Your task to perform on an android device: Open Maps and search for coffee Image 0: 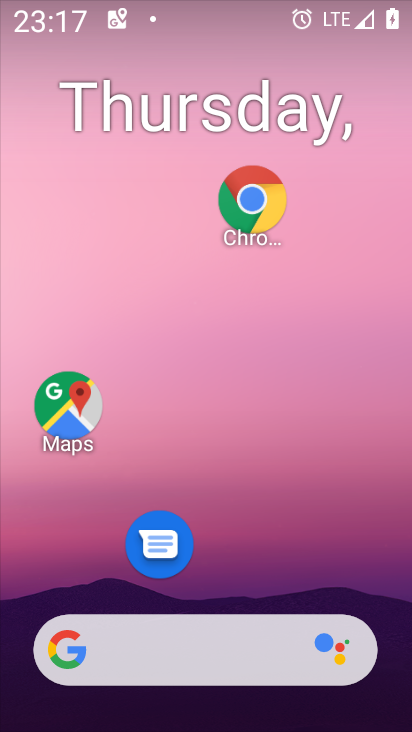
Step 0: click (61, 414)
Your task to perform on an android device: Open Maps and search for coffee Image 1: 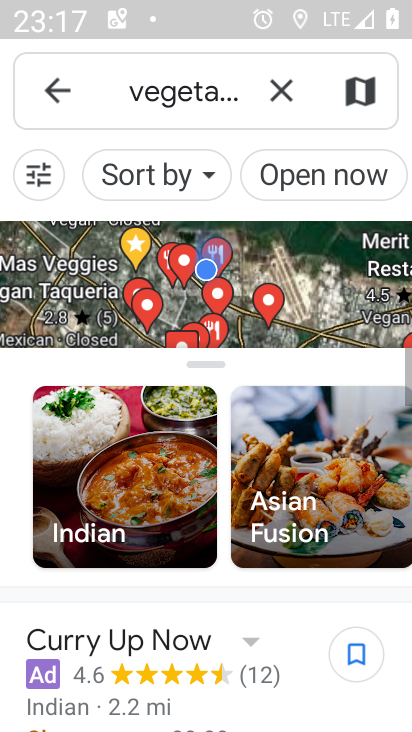
Step 1: click (291, 86)
Your task to perform on an android device: Open Maps and search for coffee Image 2: 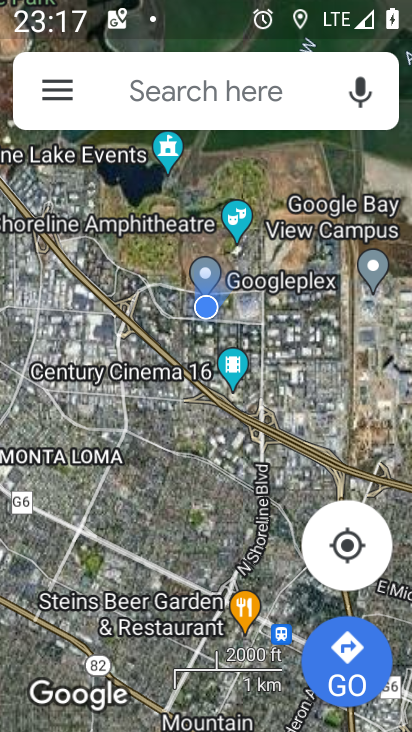
Step 2: click (271, 87)
Your task to perform on an android device: Open Maps and search for coffee Image 3: 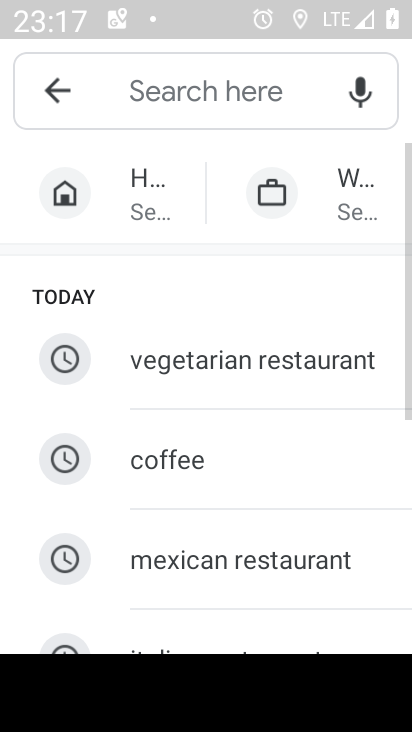
Step 3: click (209, 485)
Your task to perform on an android device: Open Maps and search for coffee Image 4: 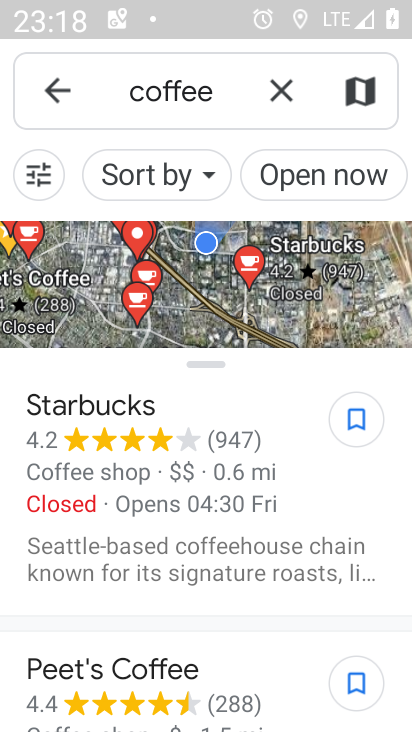
Step 4: task complete